Your task to perform on an android device: Check the news Image 0: 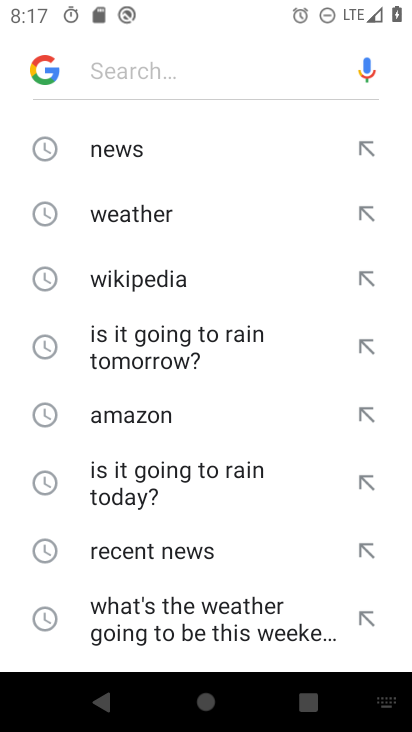
Step 0: press home button
Your task to perform on an android device: Check the news Image 1: 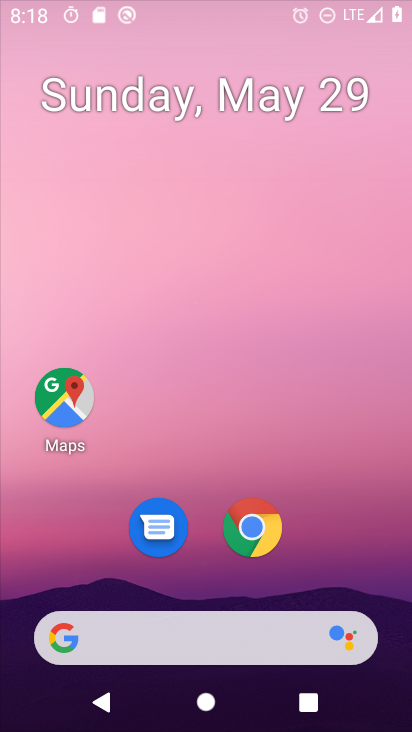
Step 1: drag from (393, 631) to (234, 13)
Your task to perform on an android device: Check the news Image 2: 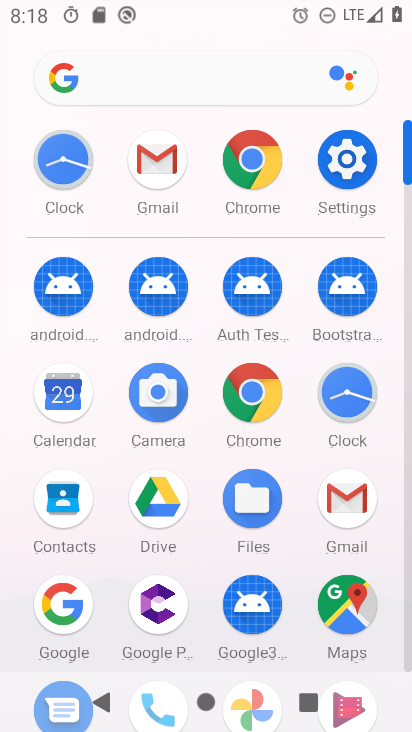
Step 2: click (73, 597)
Your task to perform on an android device: Check the news Image 3: 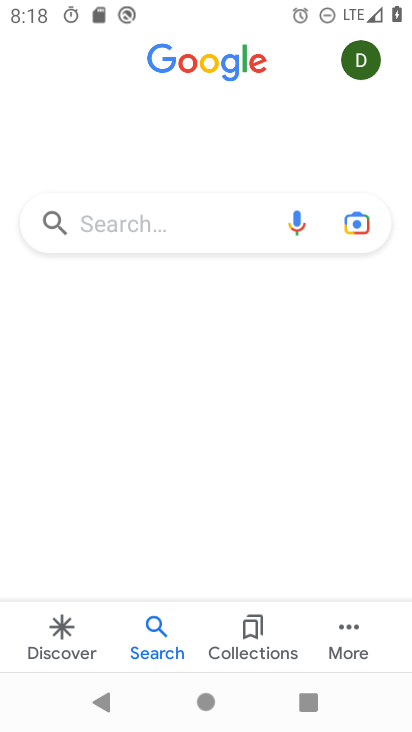
Step 3: click (179, 208)
Your task to perform on an android device: Check the news Image 4: 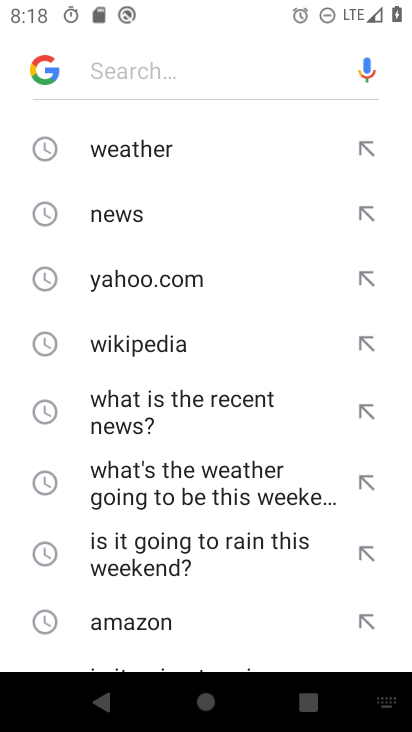
Step 4: click (173, 218)
Your task to perform on an android device: Check the news Image 5: 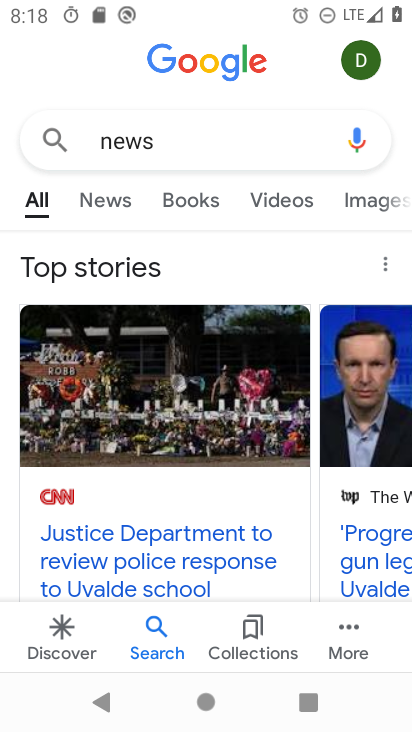
Step 5: task complete